Your task to perform on an android device: Open CNN.com Image 0: 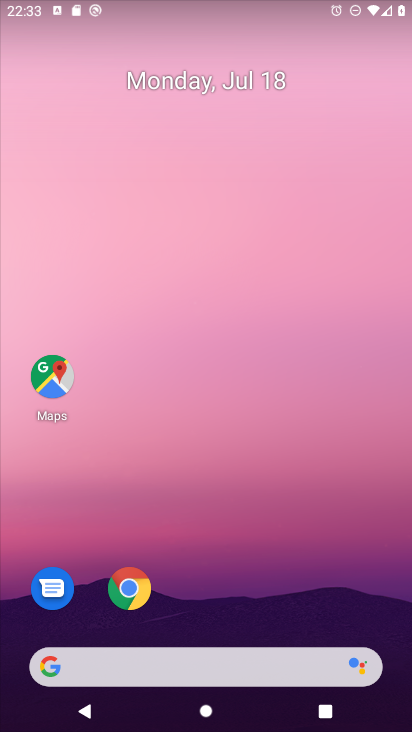
Step 0: click (132, 591)
Your task to perform on an android device: Open CNN.com Image 1: 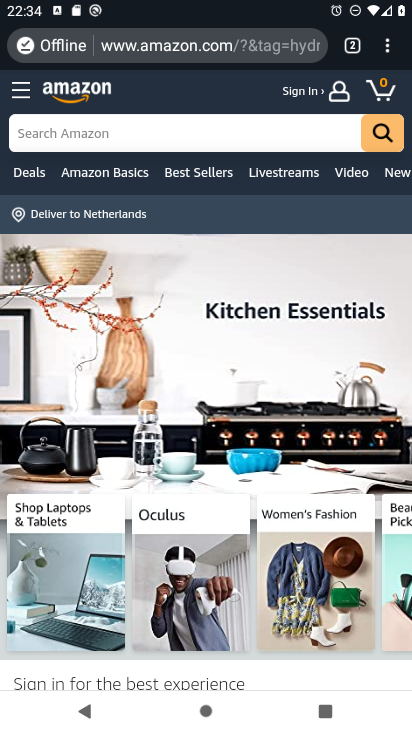
Step 1: click (276, 42)
Your task to perform on an android device: Open CNN.com Image 2: 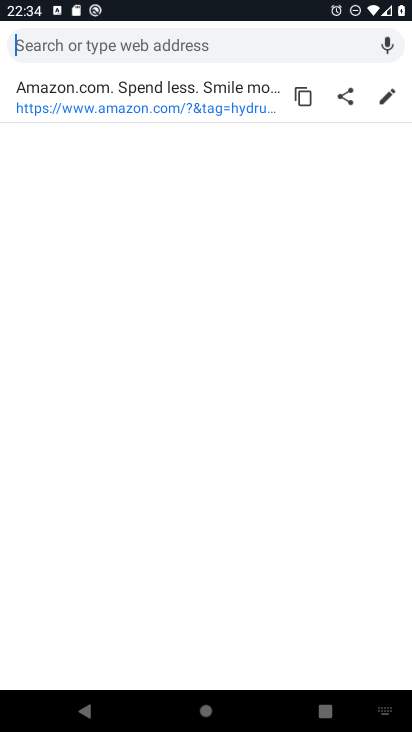
Step 2: type "CNN.com"
Your task to perform on an android device: Open CNN.com Image 3: 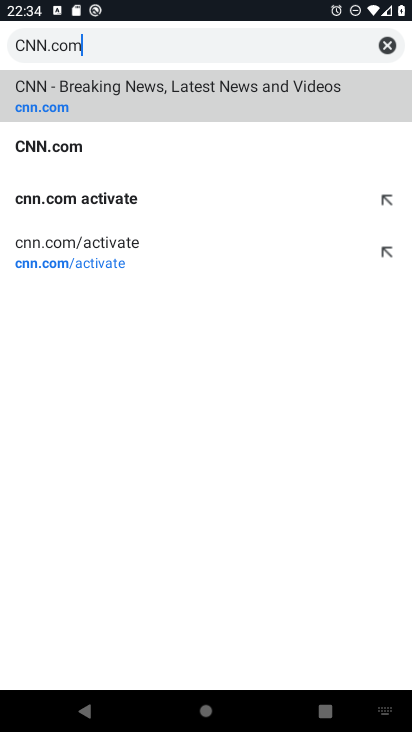
Step 3: click (58, 95)
Your task to perform on an android device: Open CNN.com Image 4: 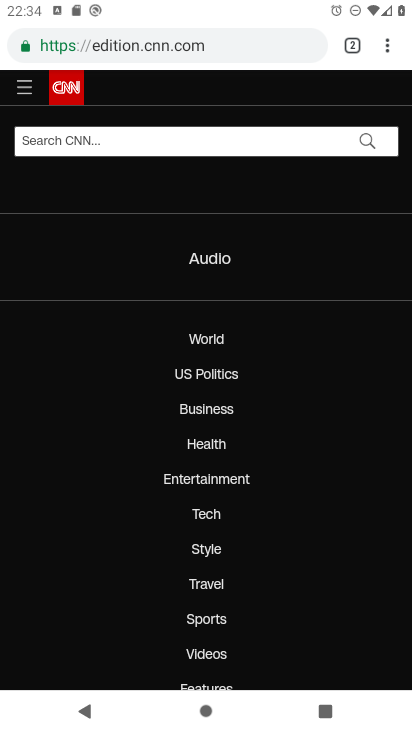
Step 4: task complete